Your task to perform on an android device: turn off location history Image 0: 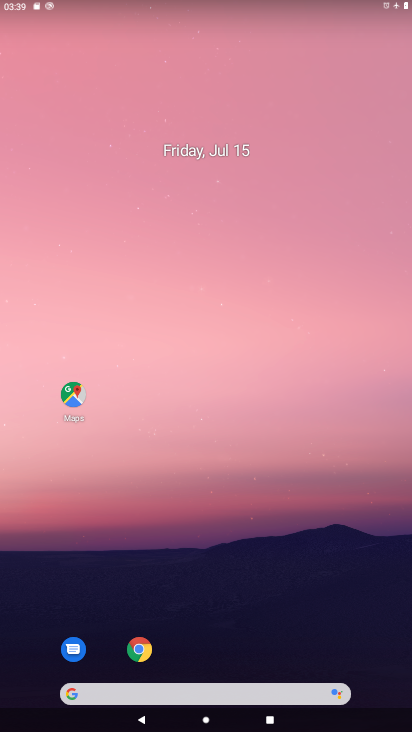
Step 0: click (73, 392)
Your task to perform on an android device: turn off location history Image 1: 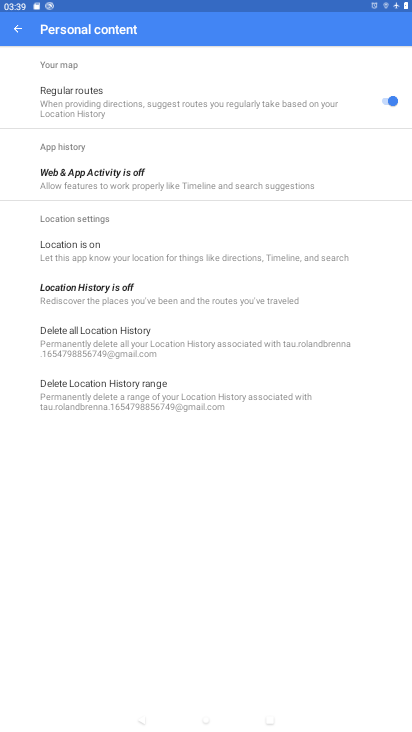
Step 1: task complete